Your task to perform on an android device: Go to Google maps Image 0: 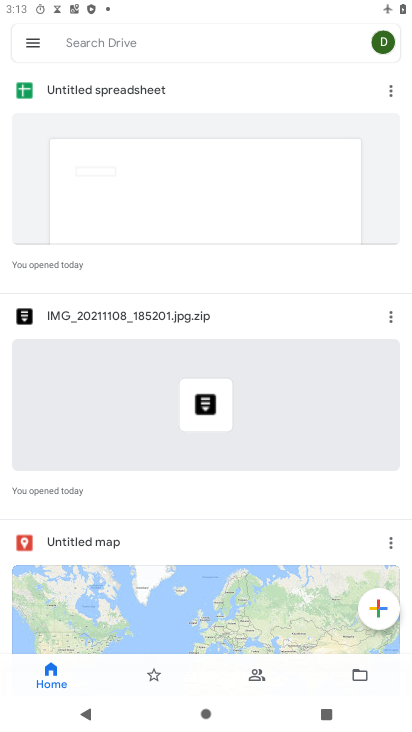
Step 0: press home button
Your task to perform on an android device: Go to Google maps Image 1: 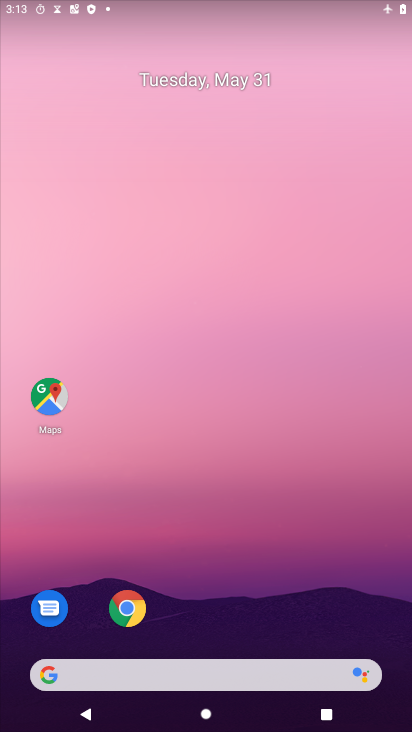
Step 1: click (47, 392)
Your task to perform on an android device: Go to Google maps Image 2: 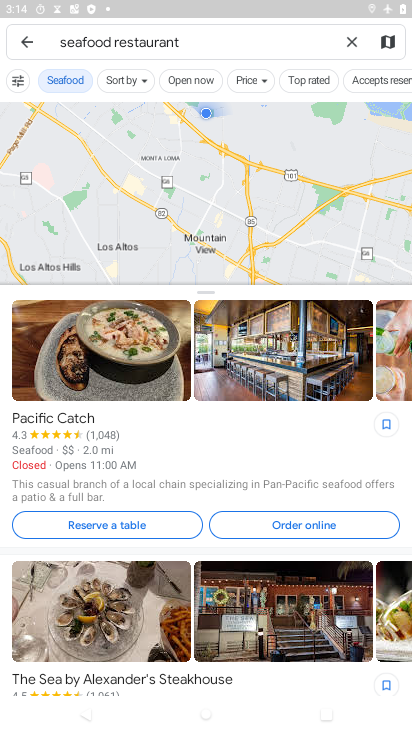
Step 2: task complete